Your task to perform on an android device: change your default location settings in chrome Image 0: 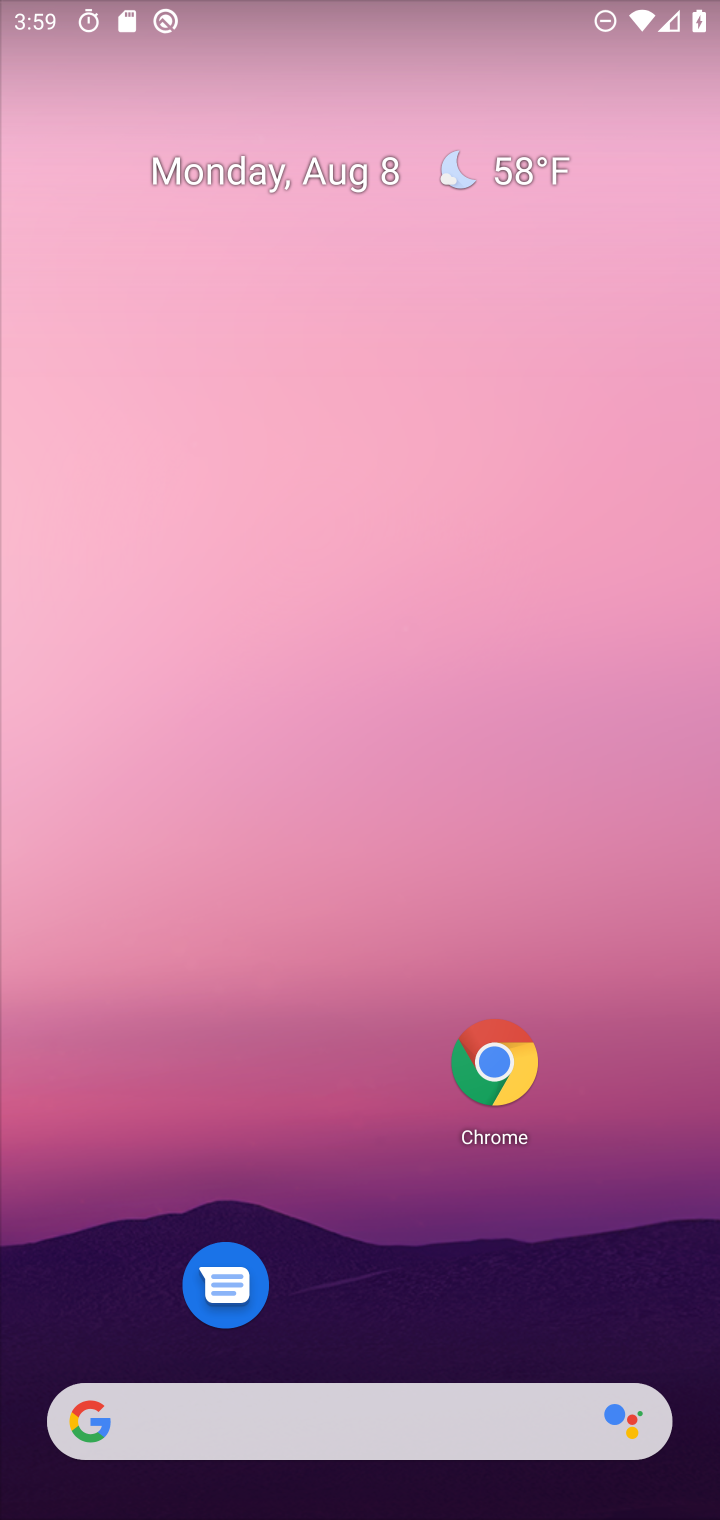
Step 0: press back button
Your task to perform on an android device: change your default location settings in chrome Image 1: 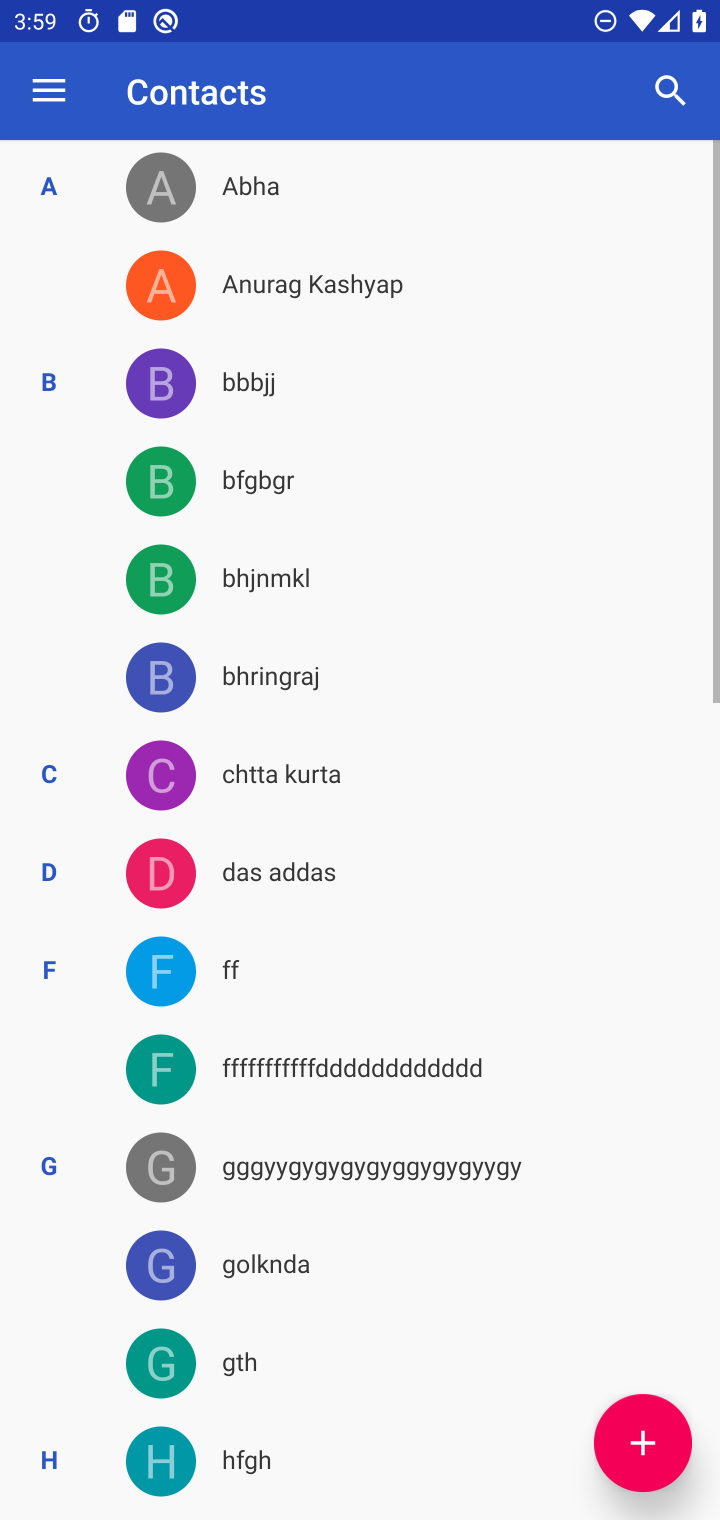
Step 1: press back button
Your task to perform on an android device: change your default location settings in chrome Image 2: 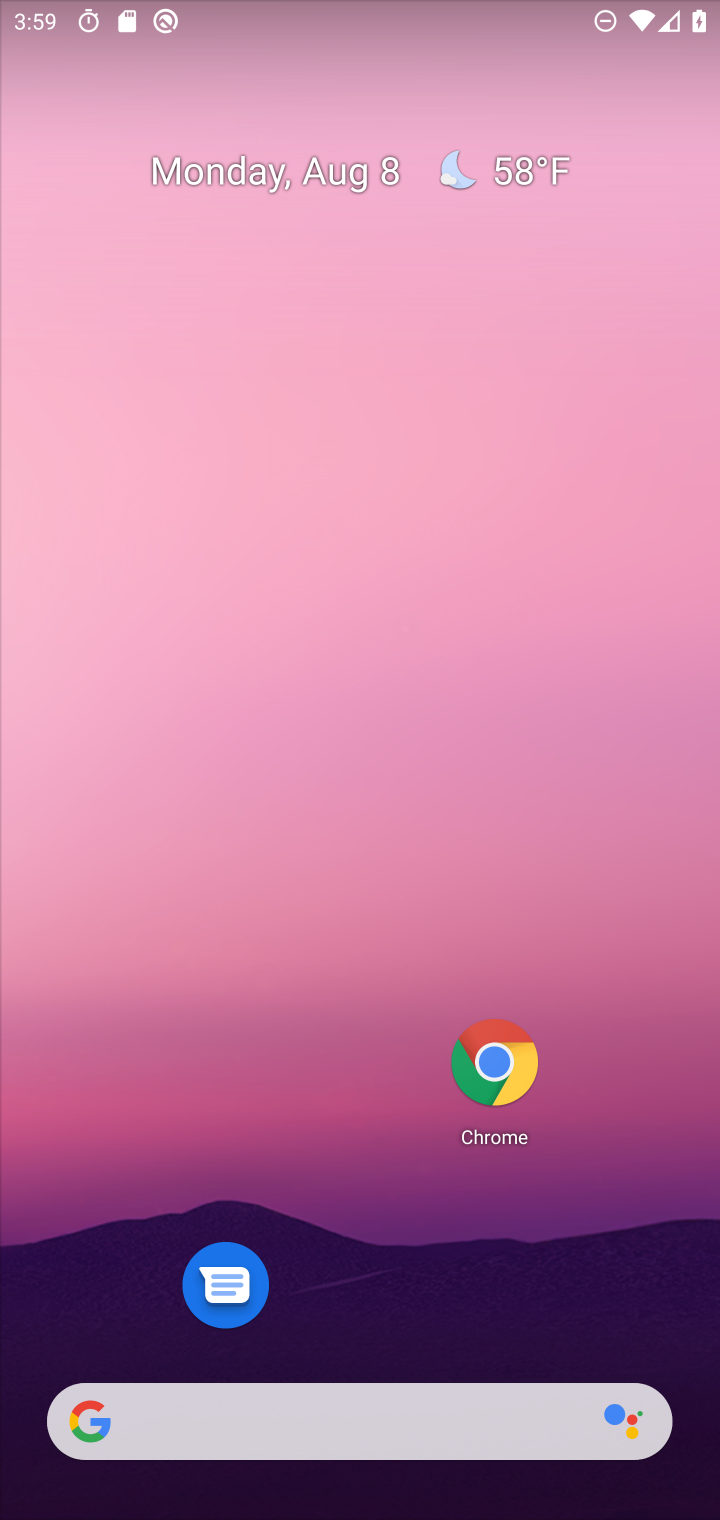
Step 2: click (463, 1055)
Your task to perform on an android device: change your default location settings in chrome Image 3: 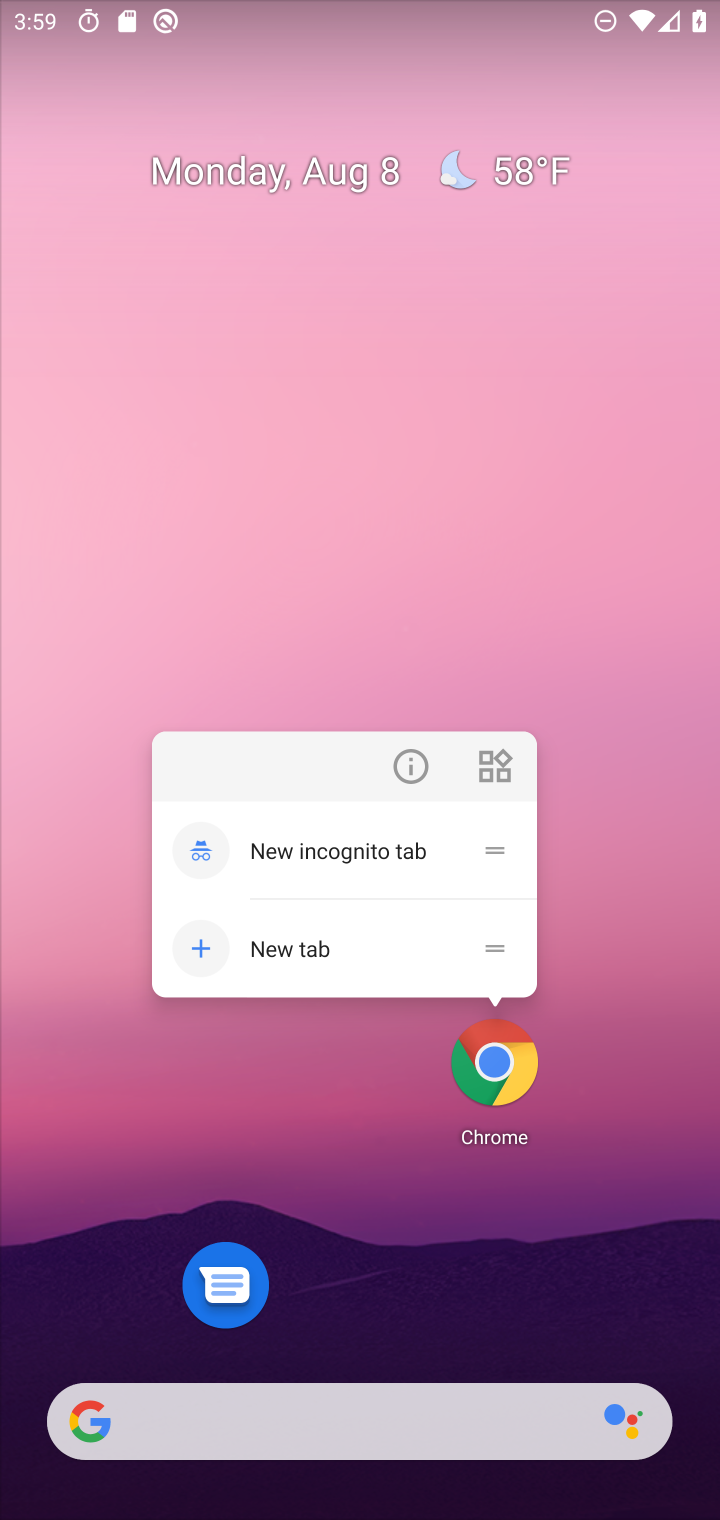
Step 3: click (525, 1093)
Your task to perform on an android device: change your default location settings in chrome Image 4: 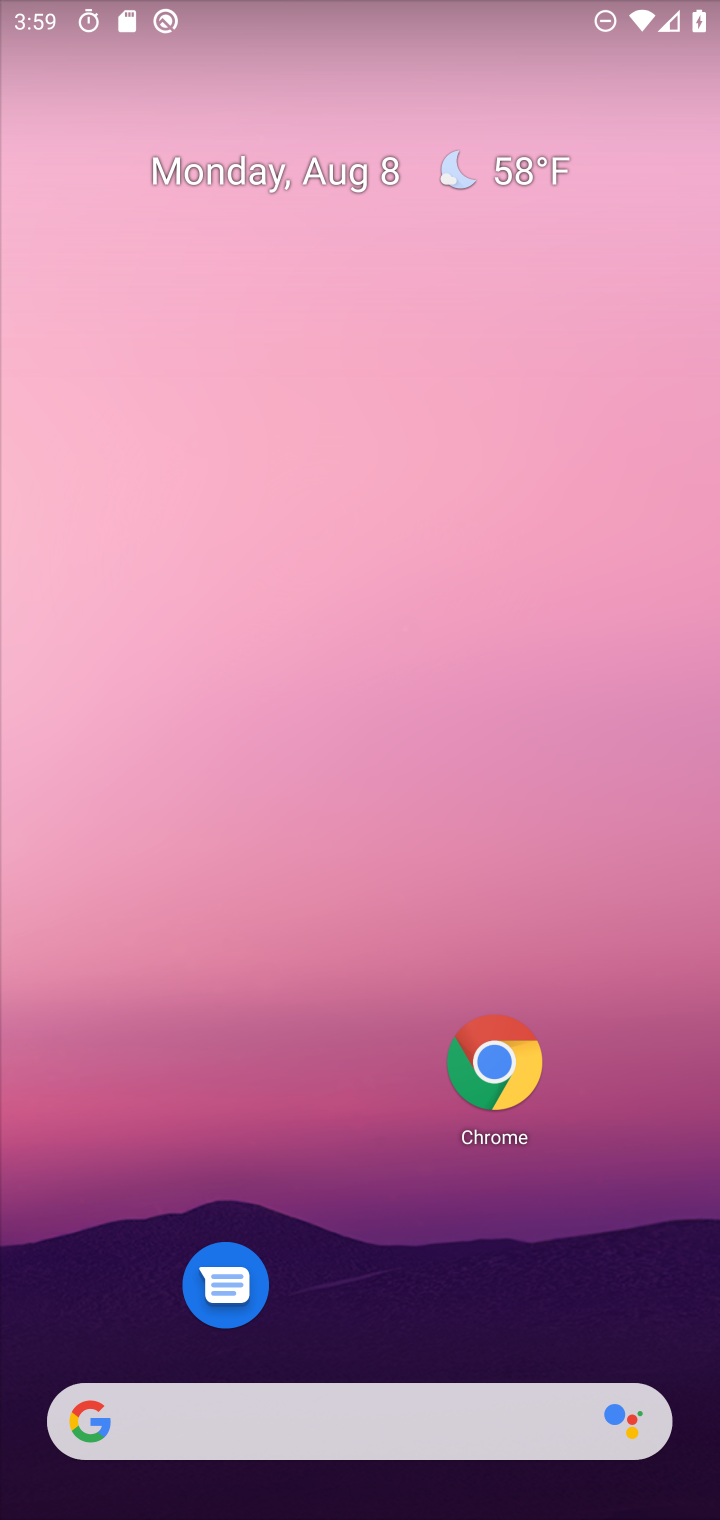
Step 4: click (506, 1062)
Your task to perform on an android device: change your default location settings in chrome Image 5: 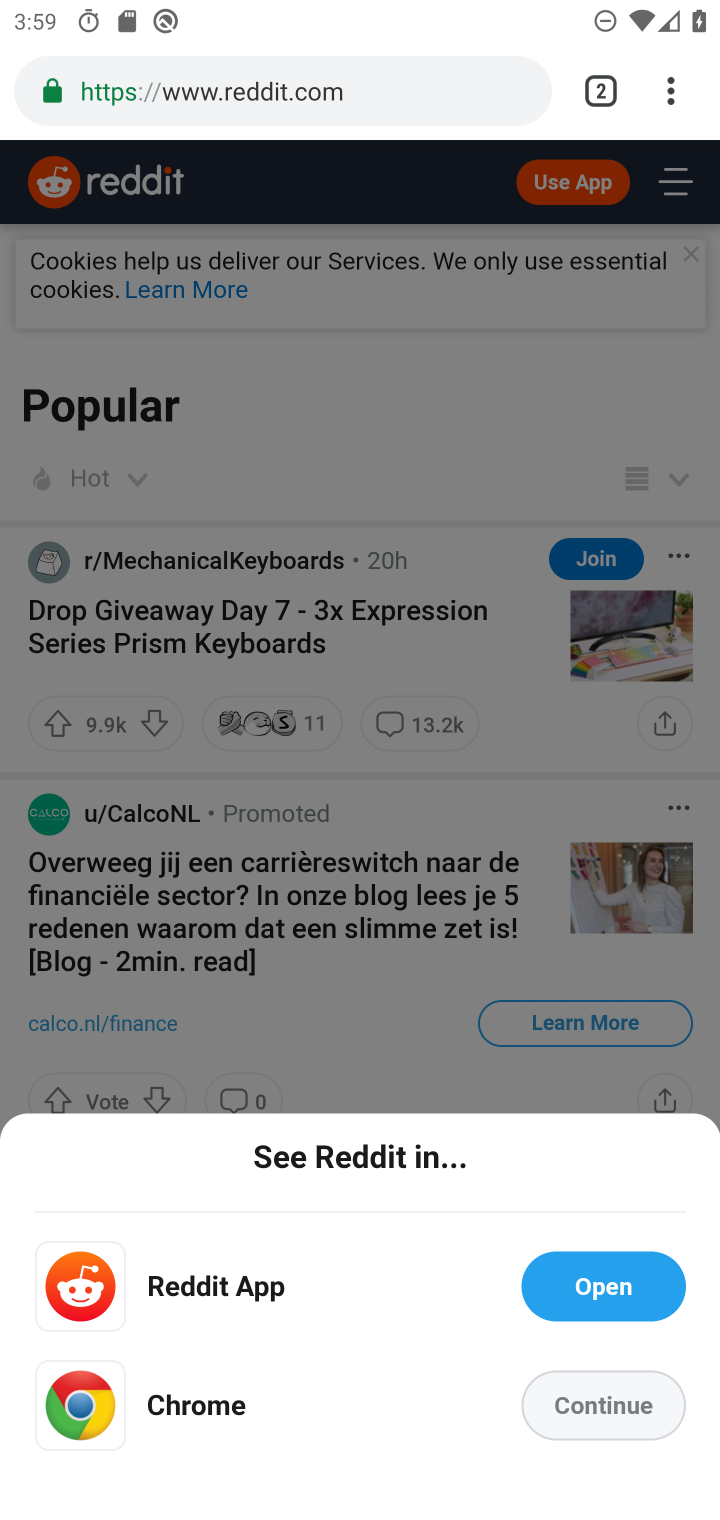
Step 5: drag from (663, 91) to (411, 1192)
Your task to perform on an android device: change your default location settings in chrome Image 6: 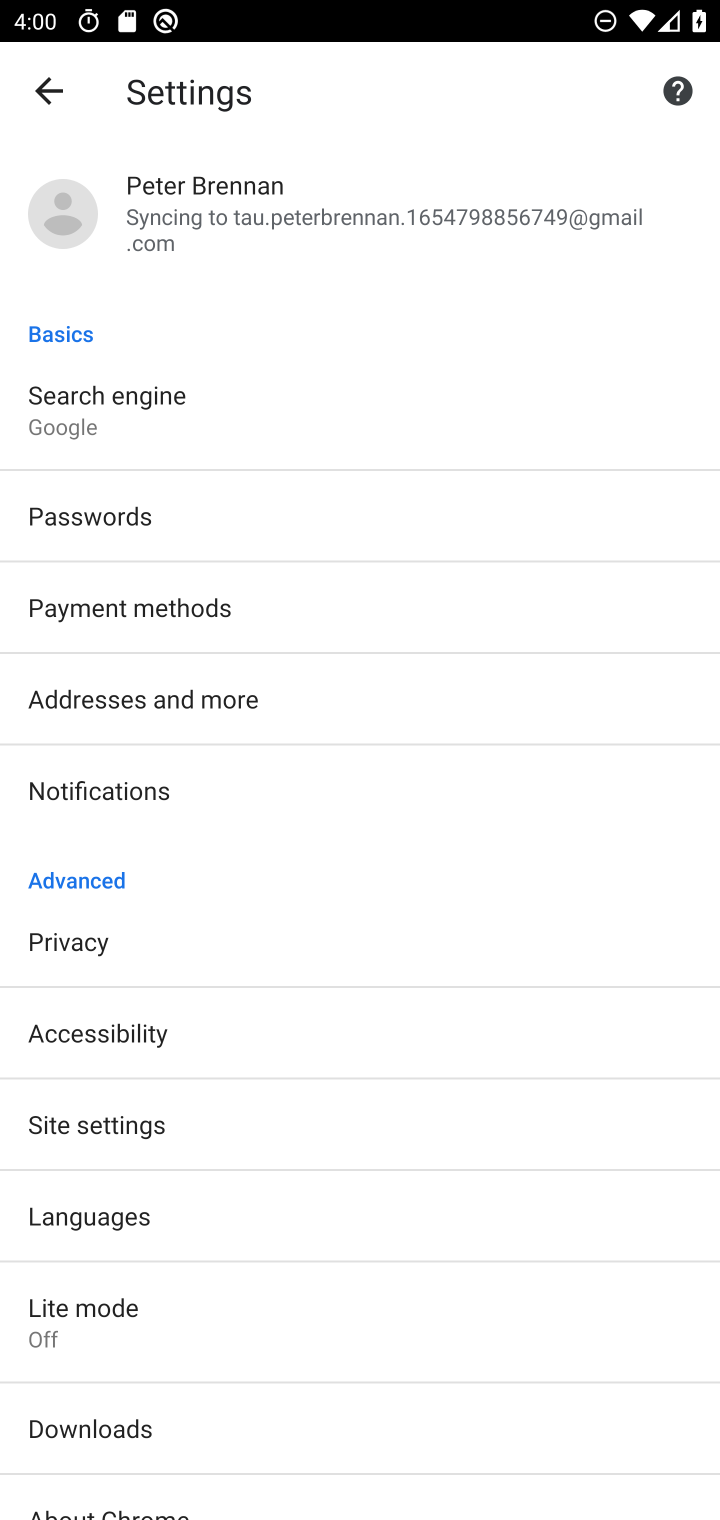
Step 6: click (112, 1112)
Your task to perform on an android device: change your default location settings in chrome Image 7: 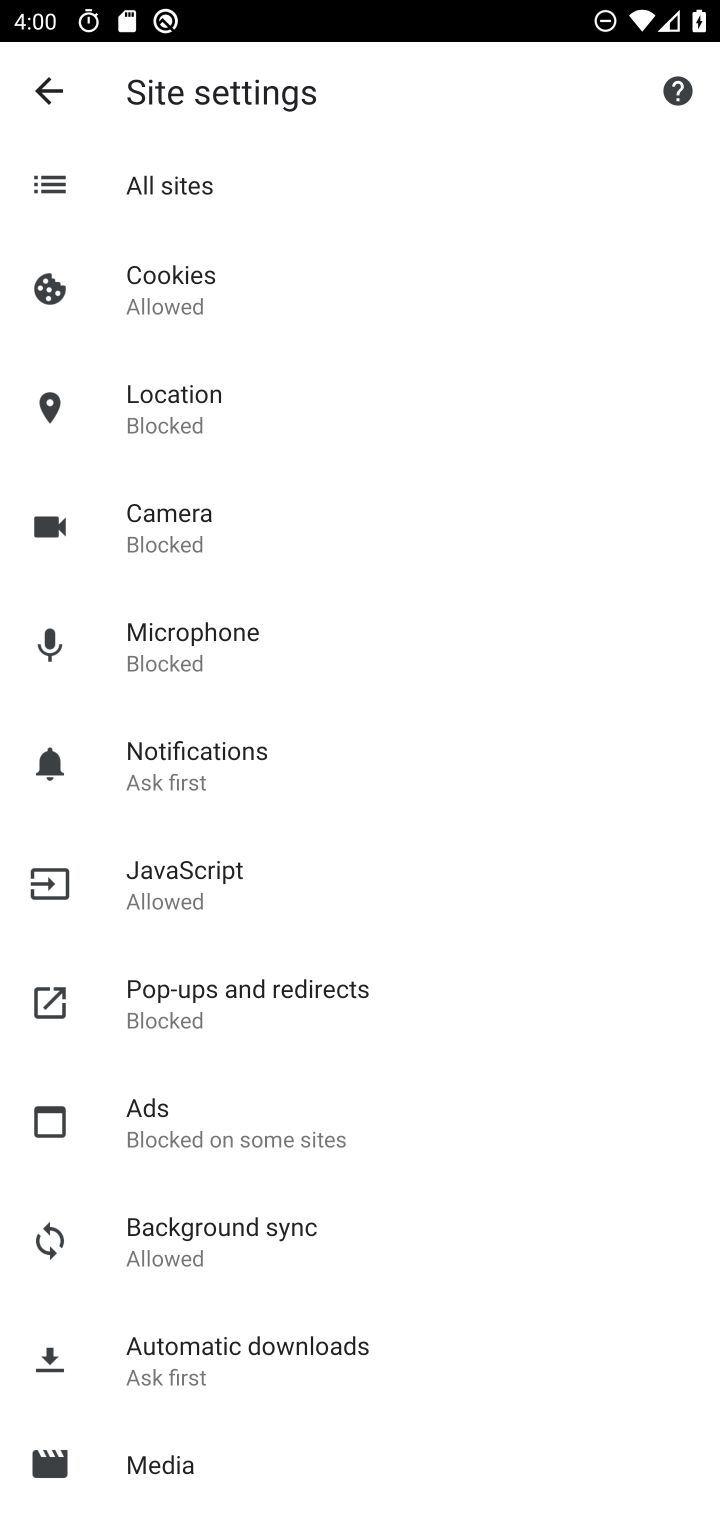
Step 7: click (197, 398)
Your task to perform on an android device: change your default location settings in chrome Image 8: 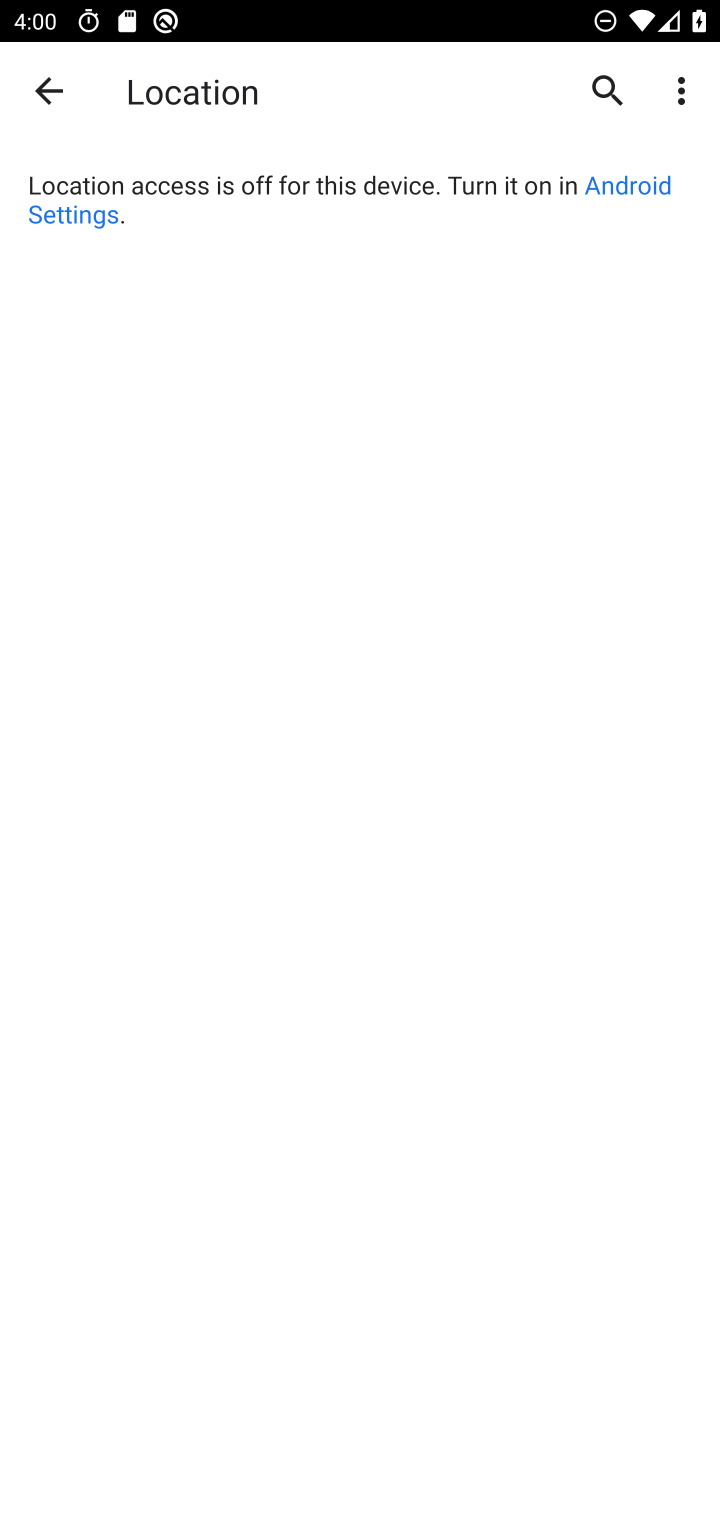
Step 8: task complete